Your task to perform on an android device: Add "macbook pro 13 inch" to the cart on amazon.com Image 0: 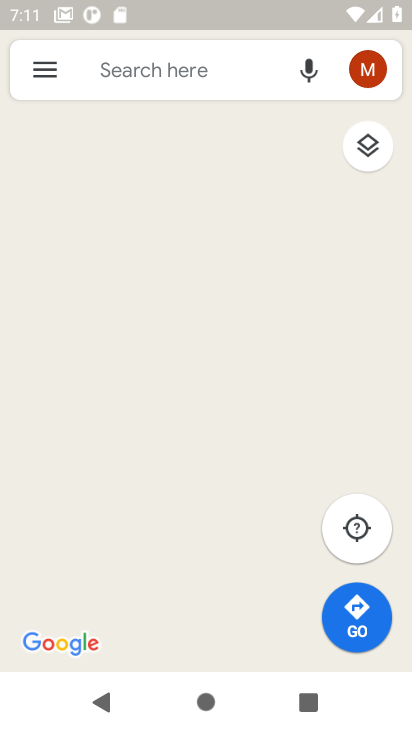
Step 0: press home button
Your task to perform on an android device: Add "macbook pro 13 inch" to the cart on amazon.com Image 1: 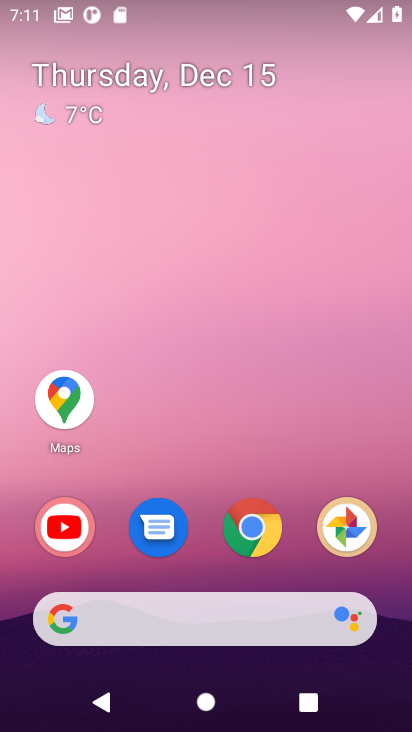
Step 1: click (255, 531)
Your task to perform on an android device: Add "macbook pro 13 inch" to the cart on amazon.com Image 2: 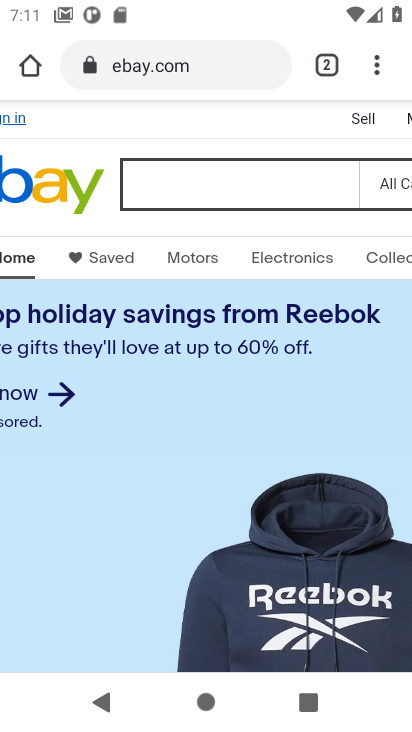
Step 2: click (206, 78)
Your task to perform on an android device: Add "macbook pro 13 inch" to the cart on amazon.com Image 3: 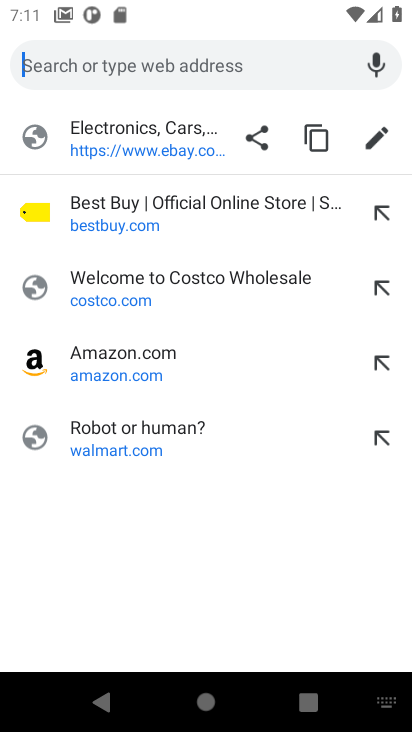
Step 3: click (158, 379)
Your task to perform on an android device: Add "macbook pro 13 inch" to the cart on amazon.com Image 4: 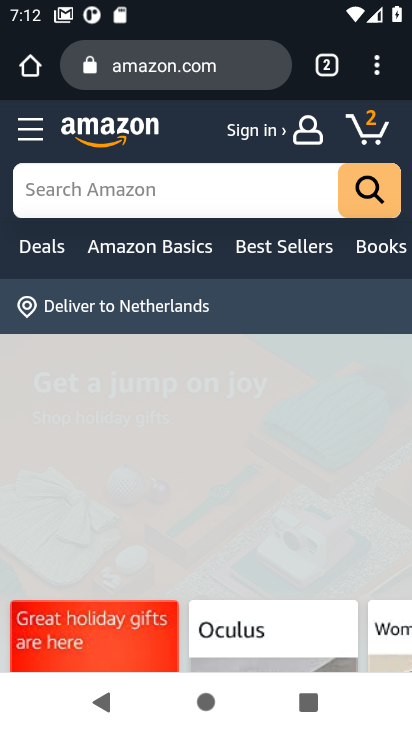
Step 4: click (150, 198)
Your task to perform on an android device: Add "macbook pro 13 inch" to the cart on amazon.com Image 5: 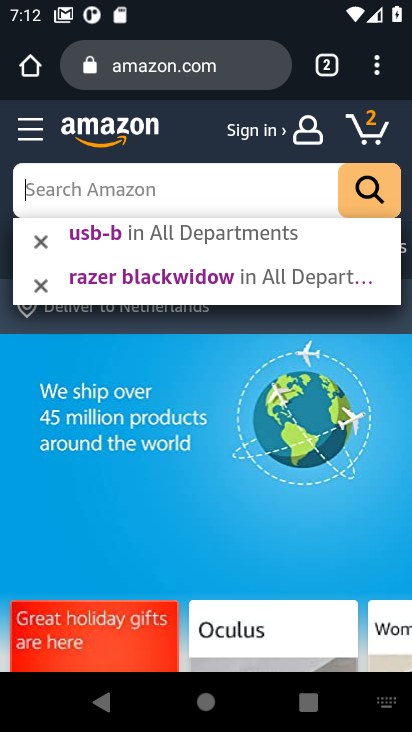
Step 5: type "macbook pro 13"
Your task to perform on an android device: Add "macbook pro 13 inch" to the cart on amazon.com Image 6: 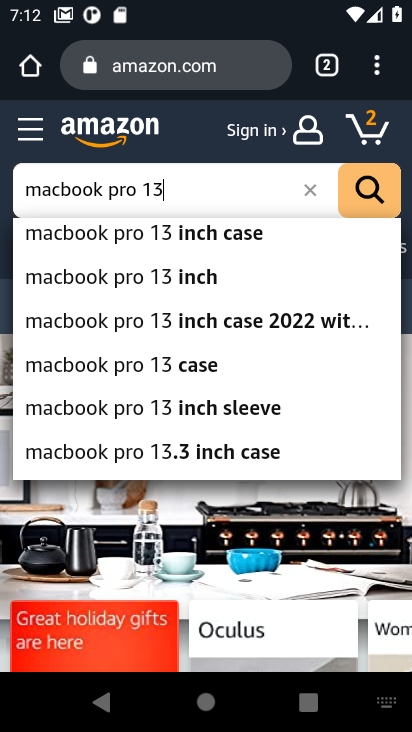
Step 6: click (154, 260)
Your task to perform on an android device: Add "macbook pro 13 inch" to the cart on amazon.com Image 7: 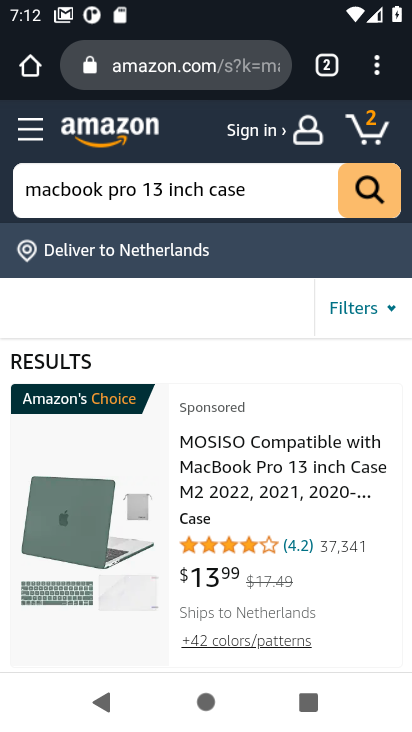
Step 7: click (230, 469)
Your task to perform on an android device: Add "macbook pro 13 inch" to the cart on amazon.com Image 8: 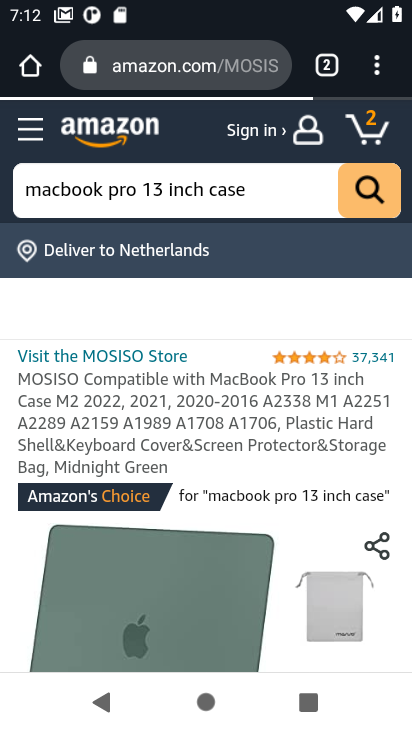
Step 8: drag from (153, 631) to (299, 251)
Your task to perform on an android device: Add "macbook pro 13 inch" to the cart on amazon.com Image 9: 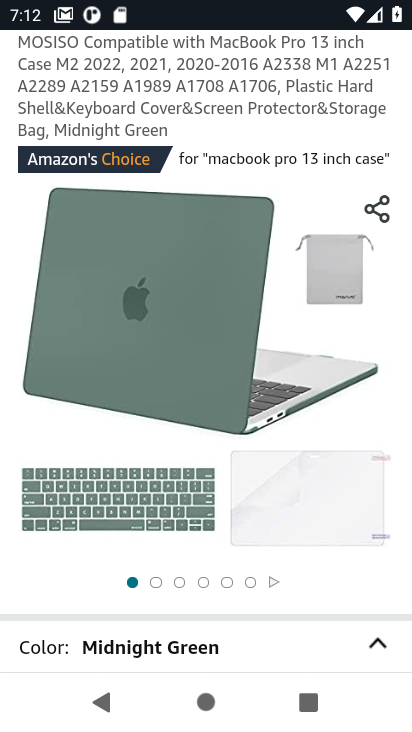
Step 9: drag from (179, 621) to (285, 331)
Your task to perform on an android device: Add "macbook pro 13 inch" to the cart on amazon.com Image 10: 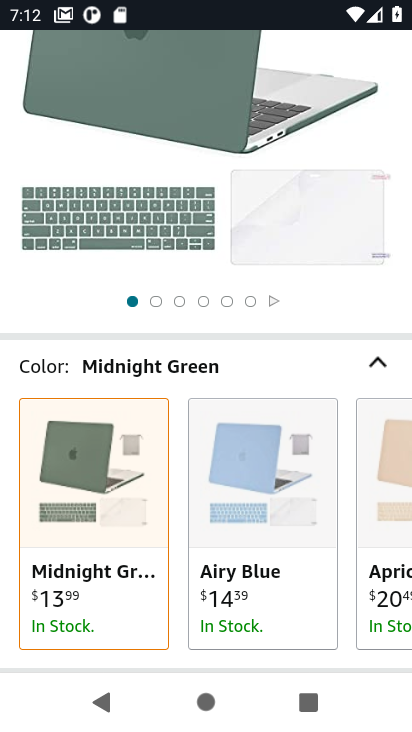
Step 10: drag from (223, 516) to (292, 292)
Your task to perform on an android device: Add "macbook pro 13 inch" to the cart on amazon.com Image 11: 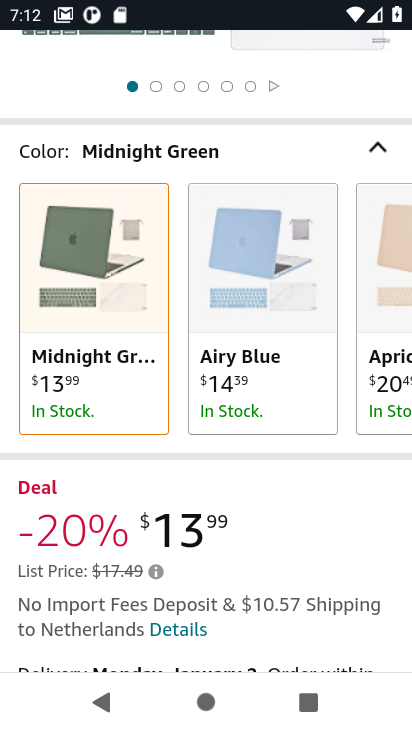
Step 11: drag from (272, 563) to (302, 235)
Your task to perform on an android device: Add "macbook pro 13 inch" to the cart on amazon.com Image 12: 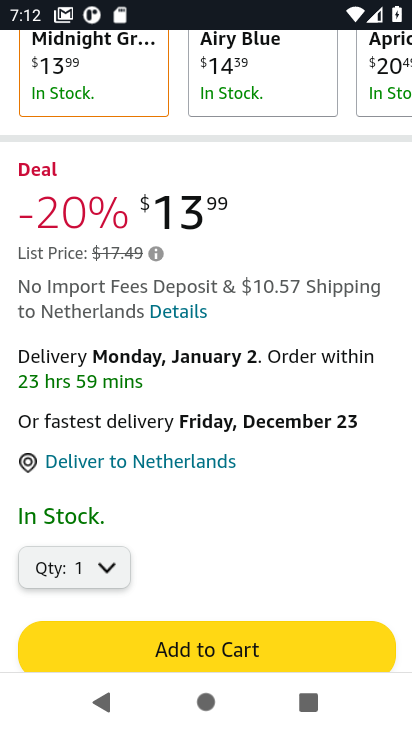
Step 12: click (225, 634)
Your task to perform on an android device: Add "macbook pro 13 inch" to the cart on amazon.com Image 13: 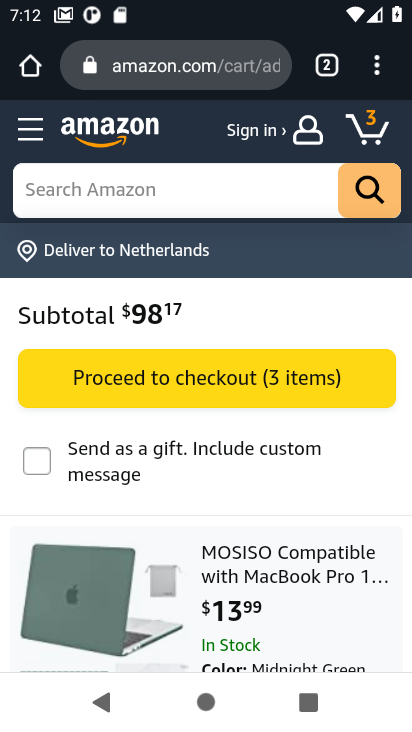
Step 13: task complete